Your task to perform on an android device: open sync settings in chrome Image 0: 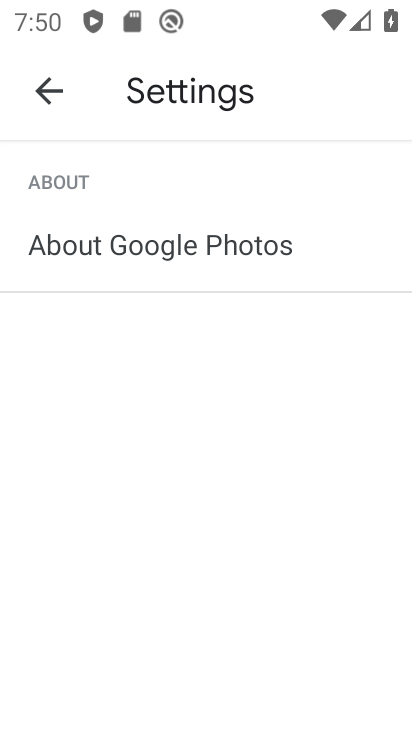
Step 0: press home button
Your task to perform on an android device: open sync settings in chrome Image 1: 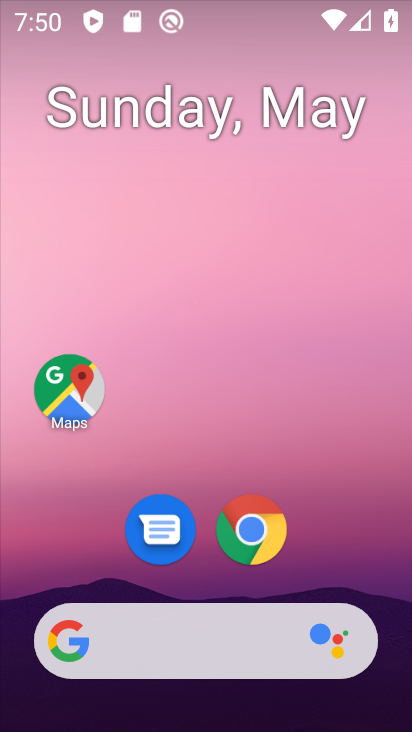
Step 1: drag from (369, 555) to (350, 130)
Your task to perform on an android device: open sync settings in chrome Image 2: 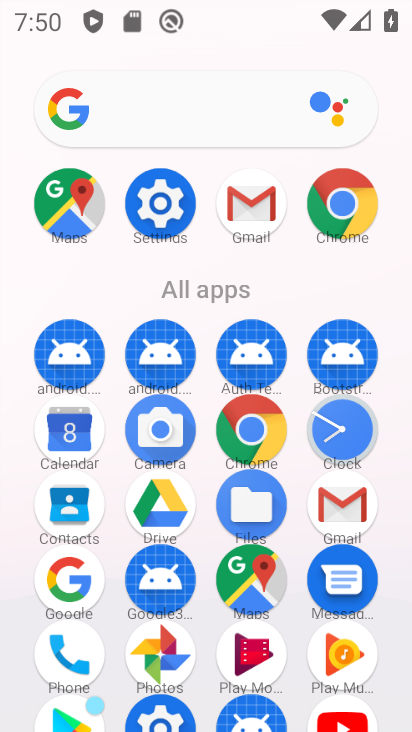
Step 2: click (272, 446)
Your task to perform on an android device: open sync settings in chrome Image 3: 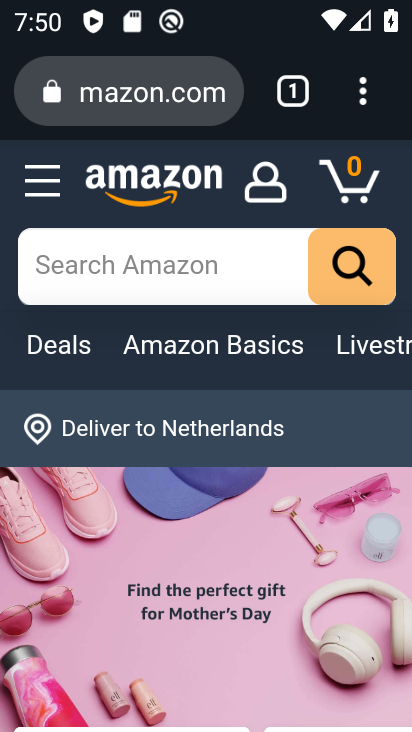
Step 3: drag from (370, 111) to (187, 537)
Your task to perform on an android device: open sync settings in chrome Image 4: 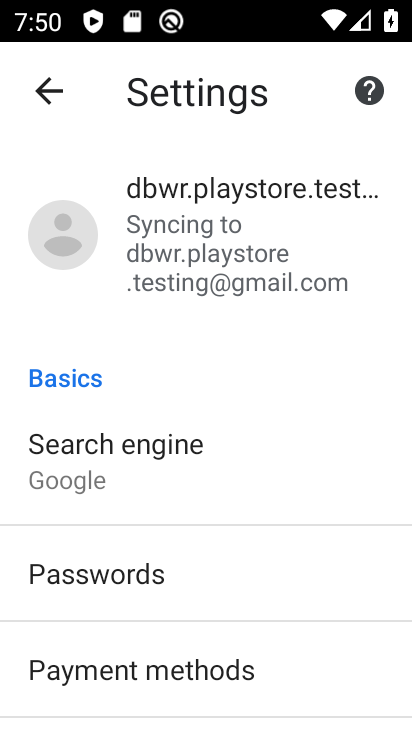
Step 4: drag from (259, 648) to (271, 226)
Your task to perform on an android device: open sync settings in chrome Image 5: 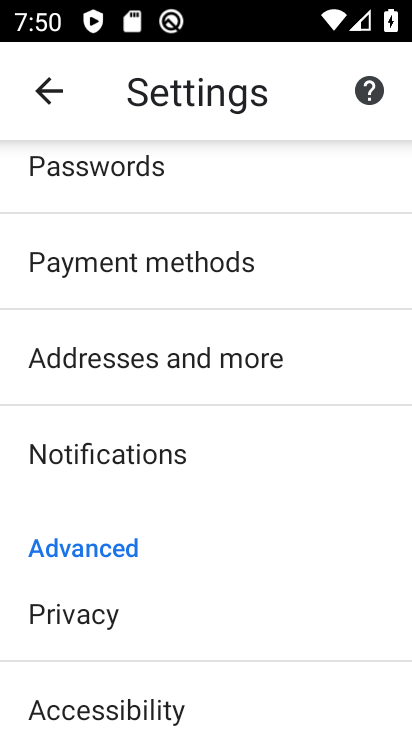
Step 5: drag from (262, 654) to (251, 261)
Your task to perform on an android device: open sync settings in chrome Image 6: 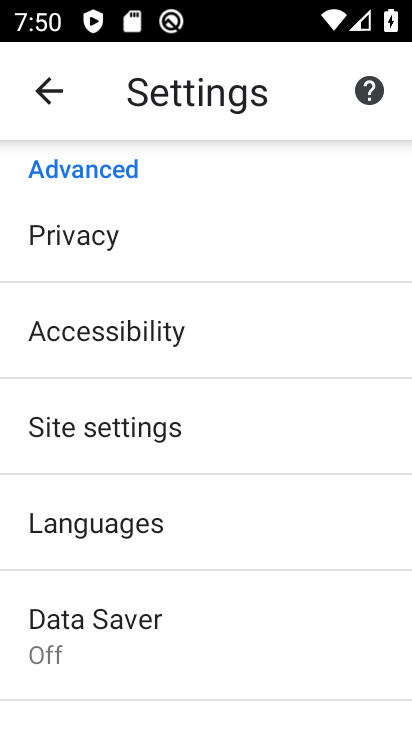
Step 6: click (180, 416)
Your task to perform on an android device: open sync settings in chrome Image 7: 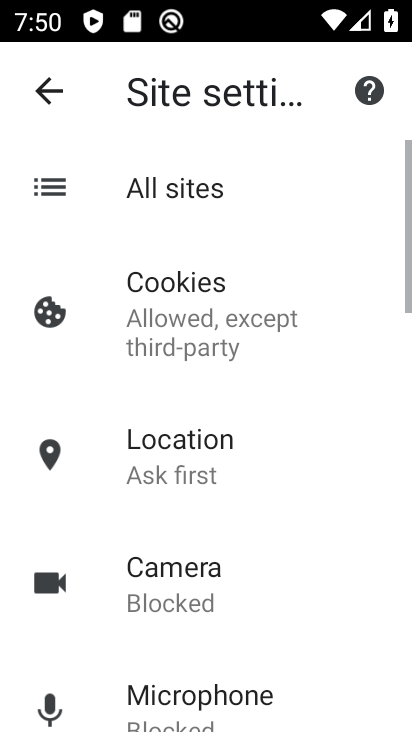
Step 7: drag from (287, 647) to (264, 336)
Your task to perform on an android device: open sync settings in chrome Image 8: 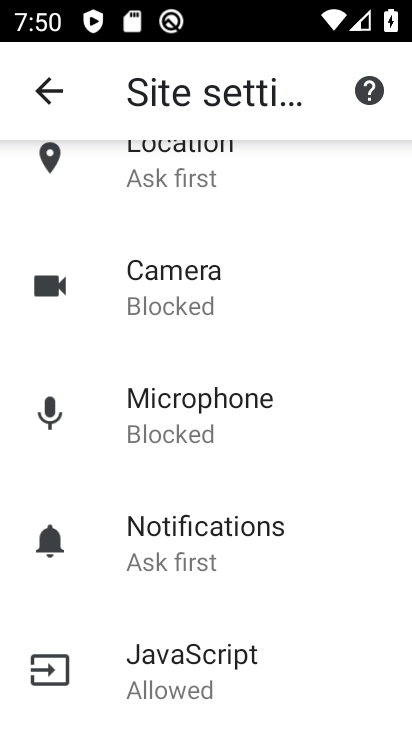
Step 8: drag from (295, 632) to (295, 329)
Your task to perform on an android device: open sync settings in chrome Image 9: 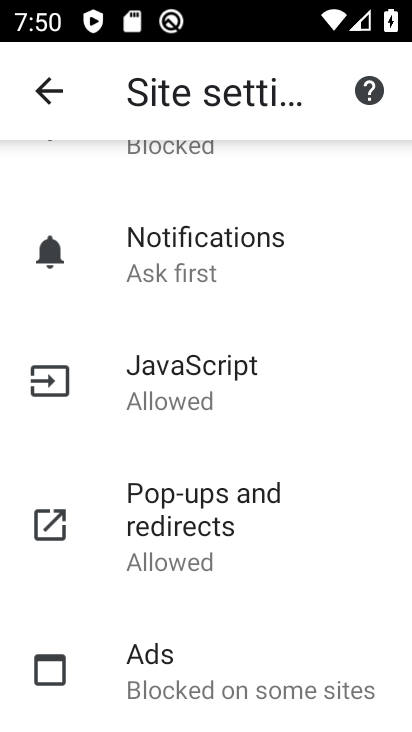
Step 9: drag from (305, 551) to (304, 303)
Your task to perform on an android device: open sync settings in chrome Image 10: 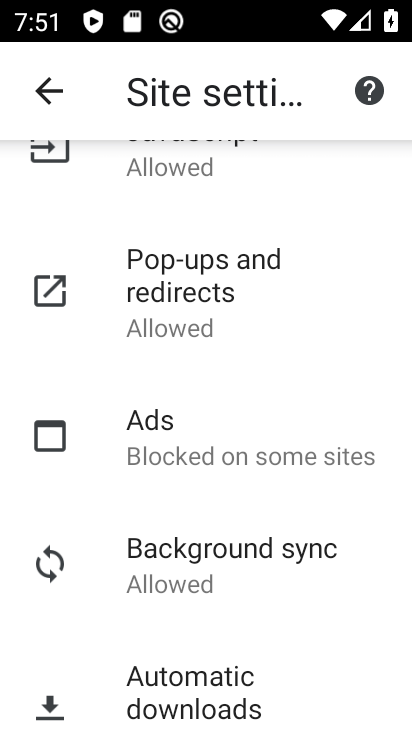
Step 10: click (231, 588)
Your task to perform on an android device: open sync settings in chrome Image 11: 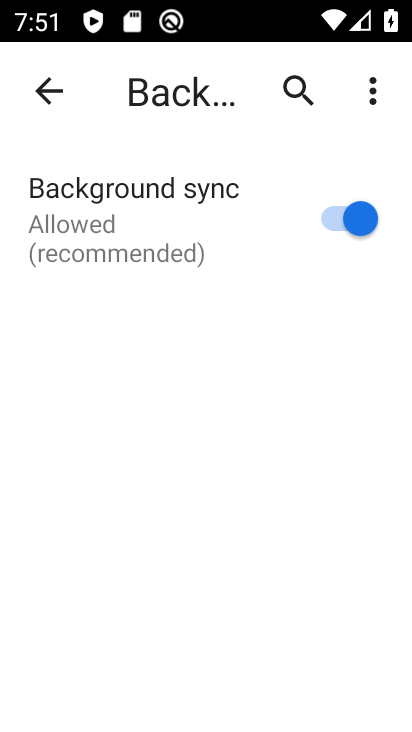
Step 11: task complete